Your task to perform on an android device: Go to location settings Image 0: 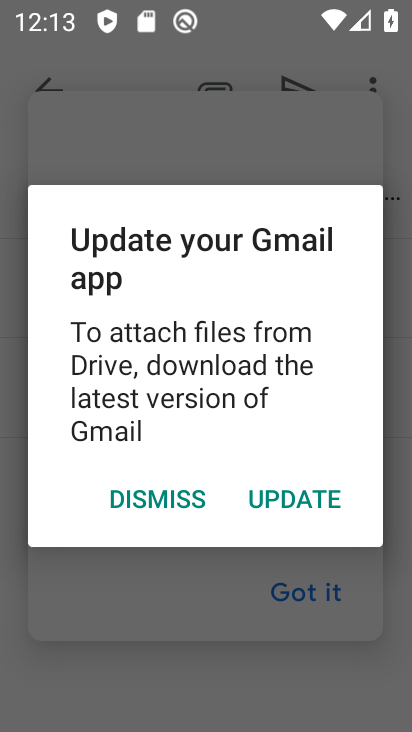
Step 0: press home button
Your task to perform on an android device: Go to location settings Image 1: 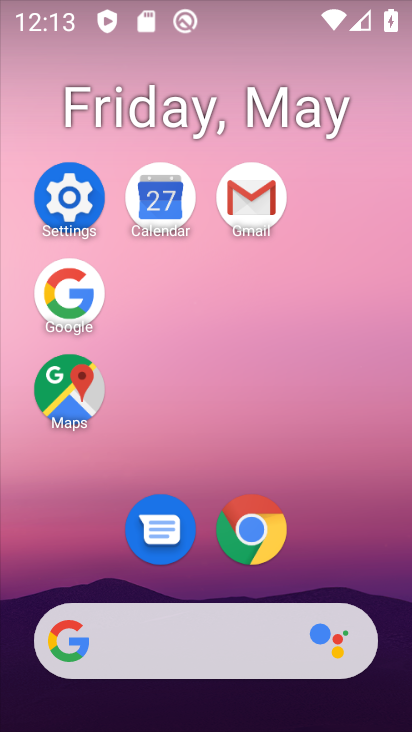
Step 1: click (69, 181)
Your task to perform on an android device: Go to location settings Image 2: 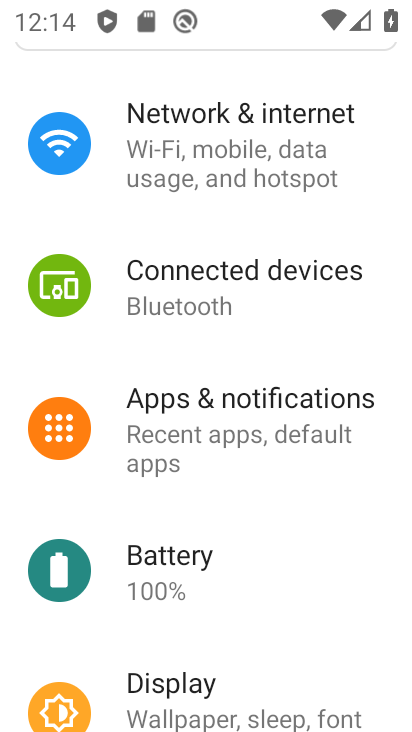
Step 2: drag from (236, 597) to (264, 160)
Your task to perform on an android device: Go to location settings Image 3: 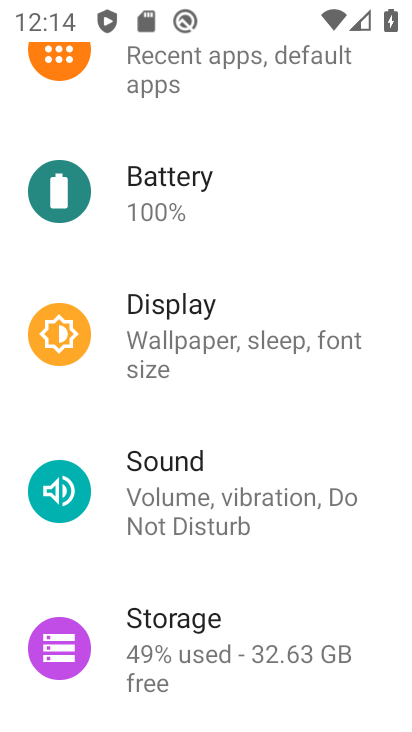
Step 3: drag from (296, 604) to (267, 80)
Your task to perform on an android device: Go to location settings Image 4: 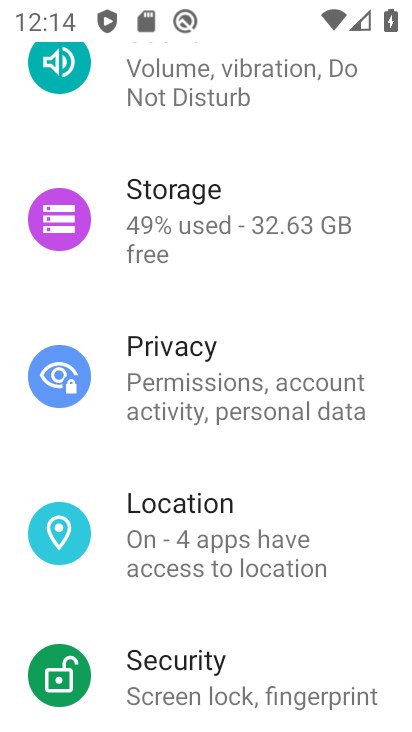
Step 4: drag from (272, 628) to (310, 238)
Your task to perform on an android device: Go to location settings Image 5: 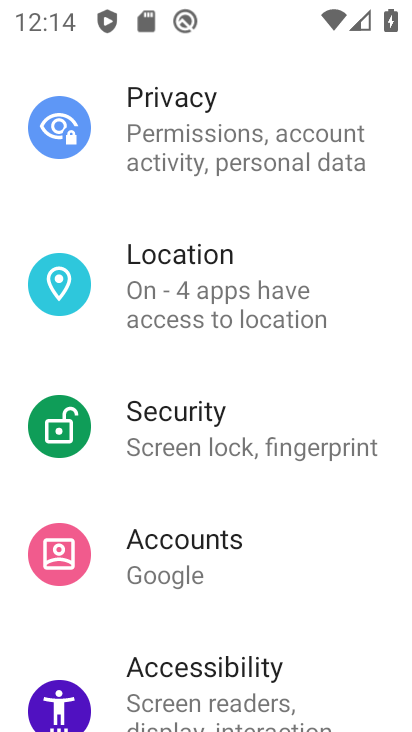
Step 5: click (259, 272)
Your task to perform on an android device: Go to location settings Image 6: 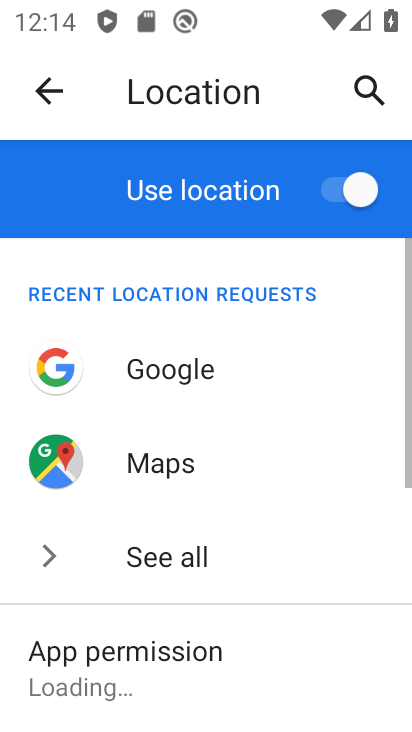
Step 6: task complete